Your task to perform on an android device: Open Google Maps and go to "Timeline" Image 0: 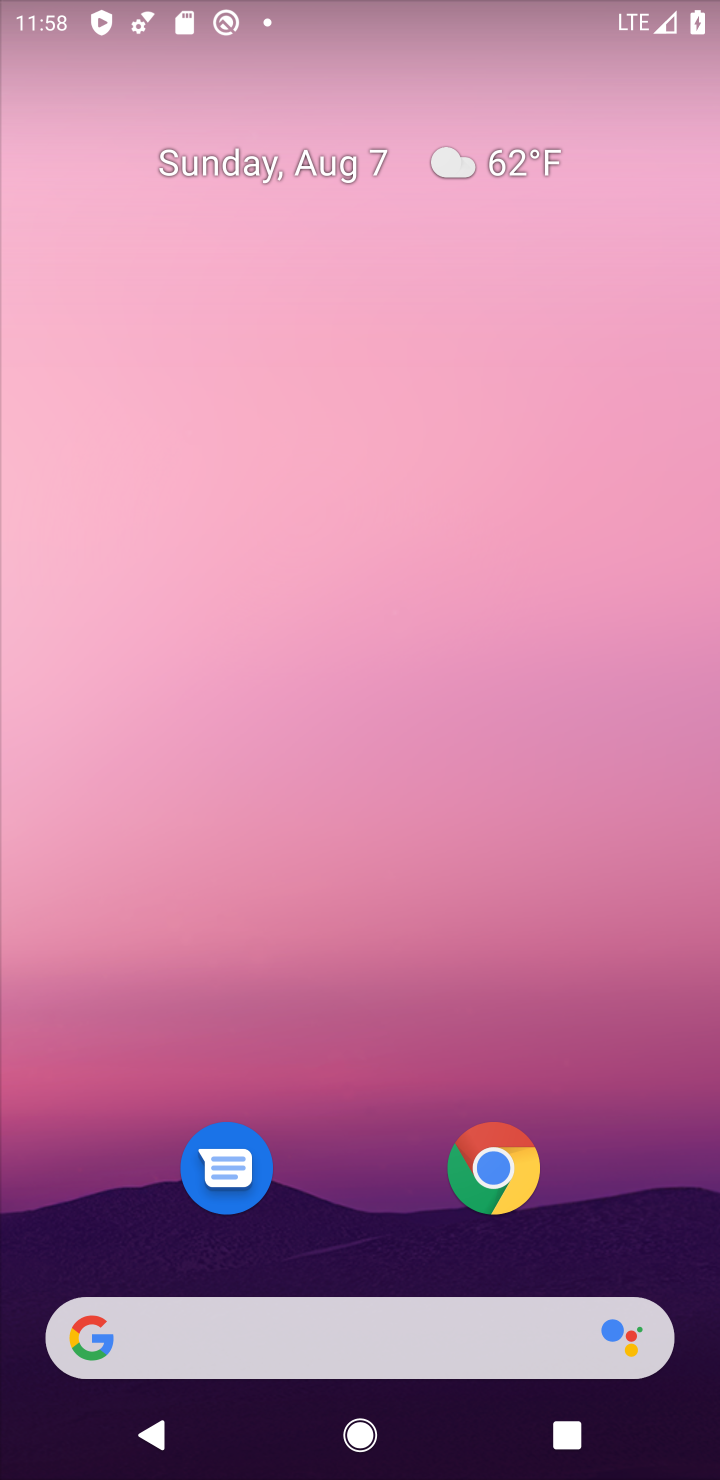
Step 0: drag from (312, 1252) to (258, 390)
Your task to perform on an android device: Open Google Maps and go to "Timeline" Image 1: 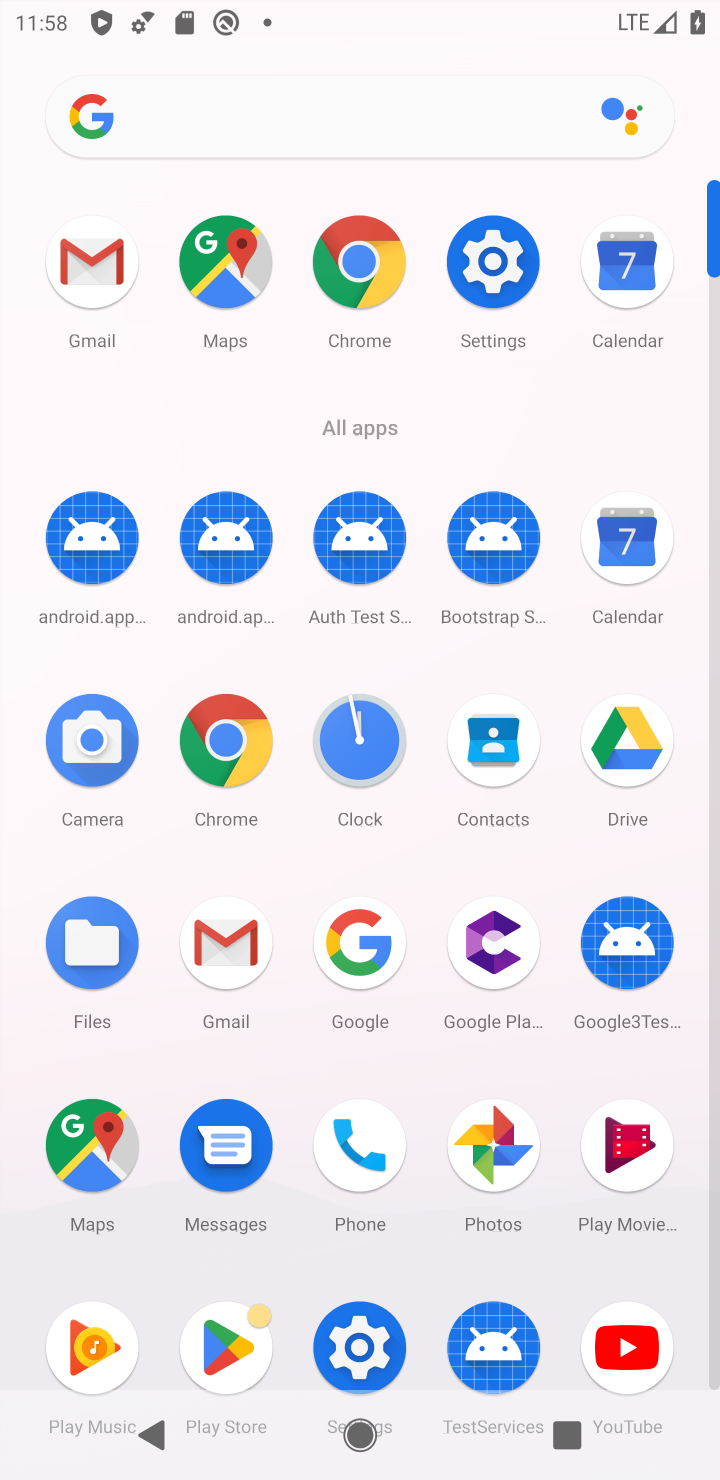
Step 1: click (226, 257)
Your task to perform on an android device: Open Google Maps and go to "Timeline" Image 2: 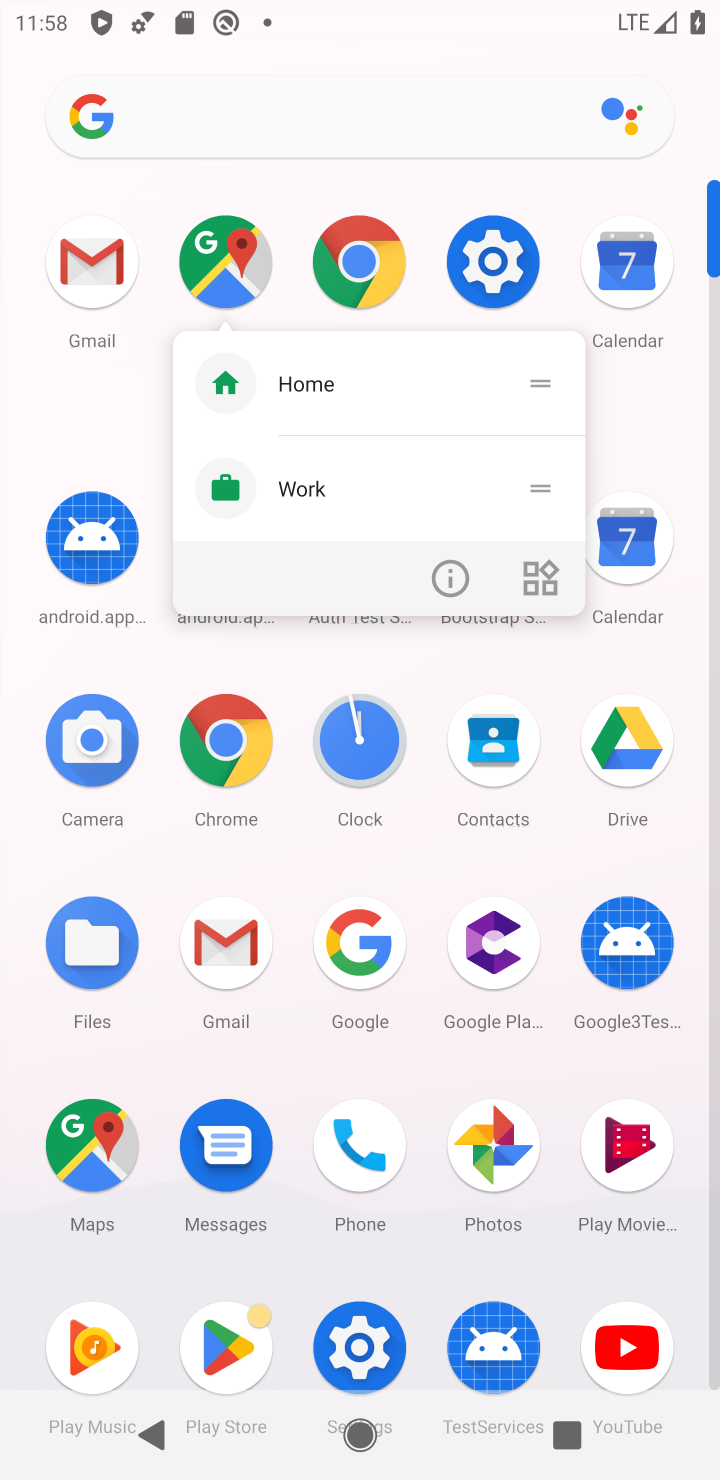
Step 2: click (226, 257)
Your task to perform on an android device: Open Google Maps and go to "Timeline" Image 3: 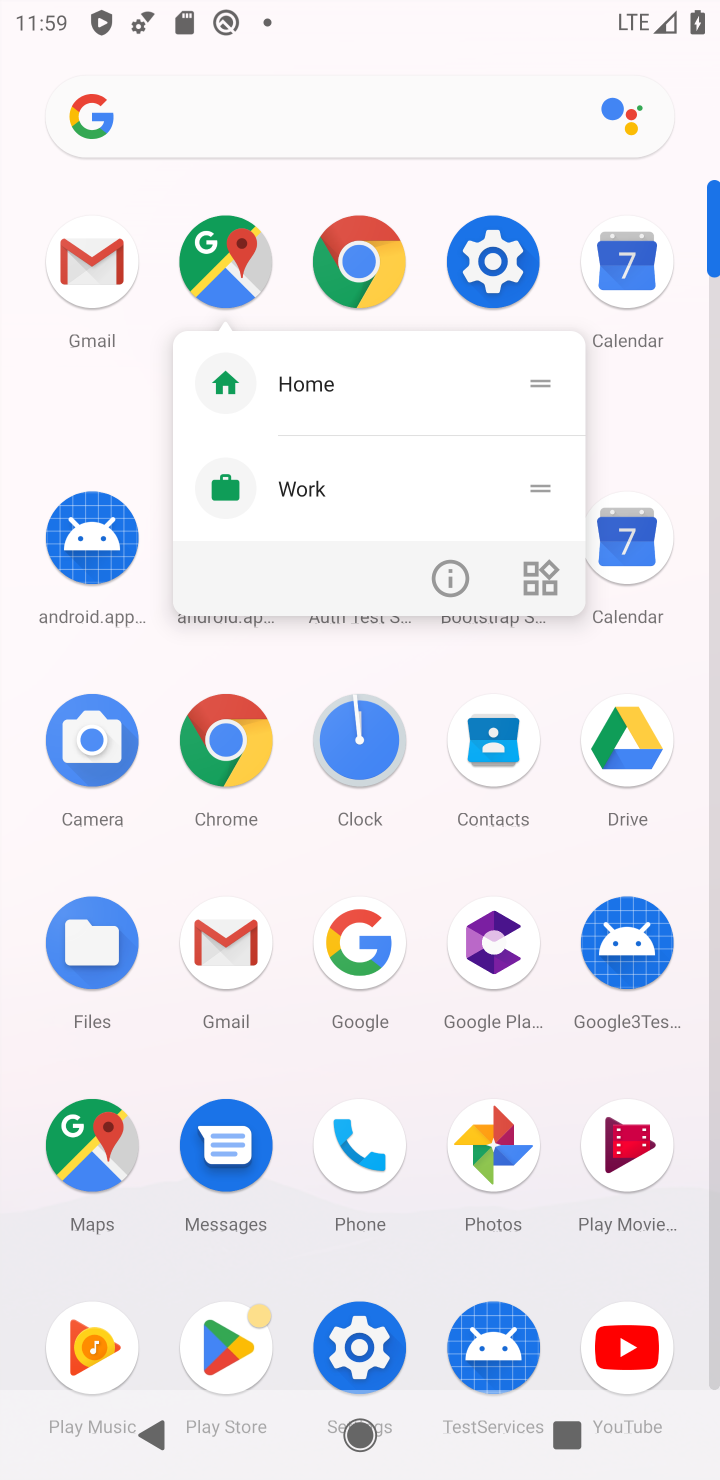
Step 3: click (226, 257)
Your task to perform on an android device: Open Google Maps and go to "Timeline" Image 4: 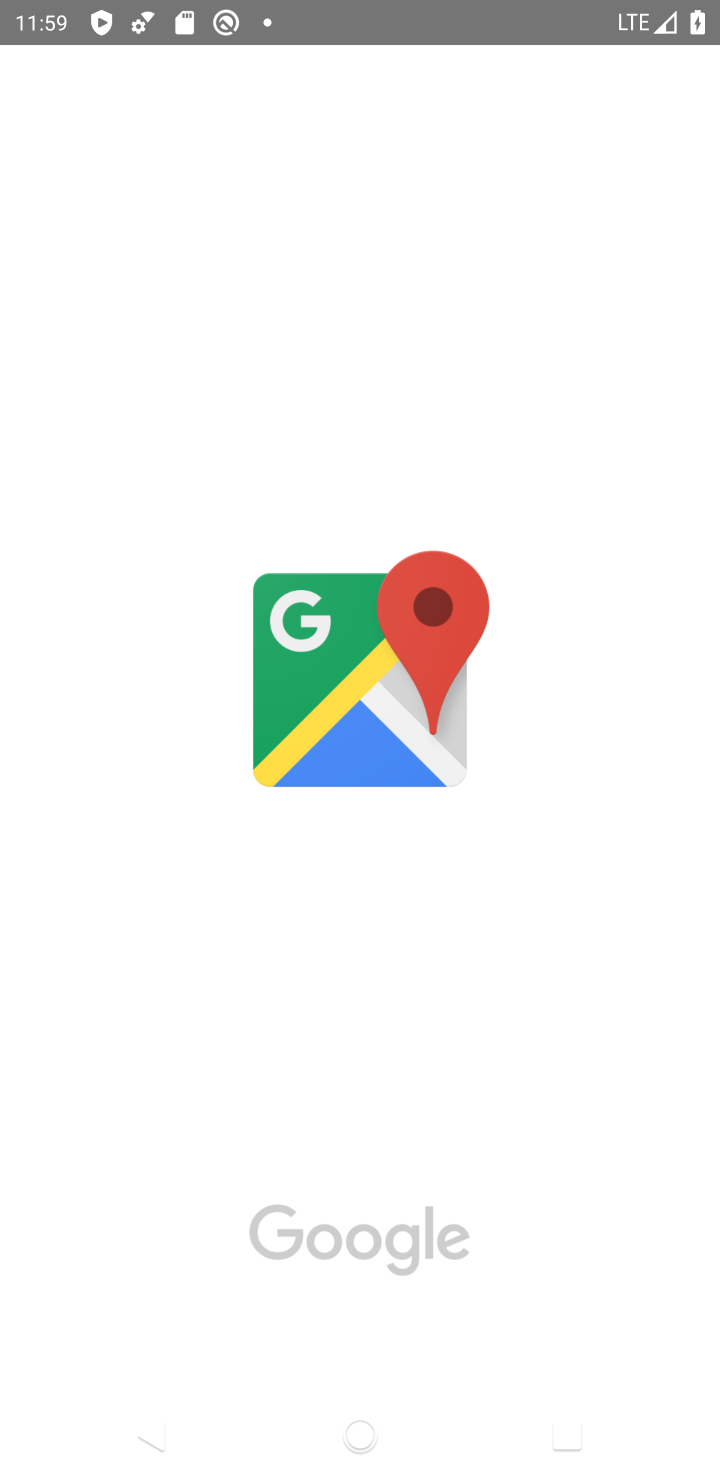
Step 4: task complete